Your task to perform on an android device: check android version Image 0: 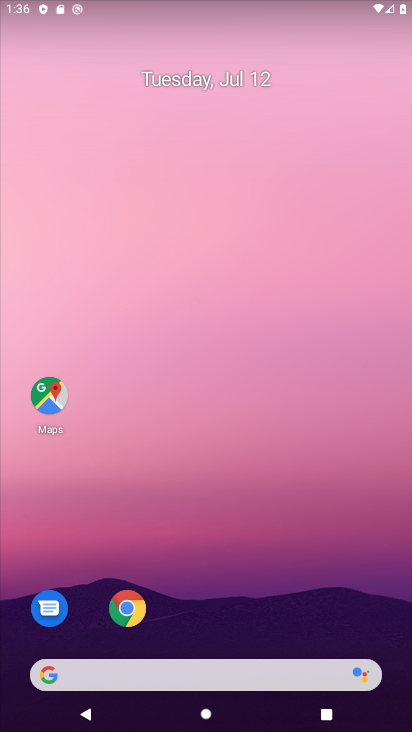
Step 0: drag from (264, 611) to (277, 102)
Your task to perform on an android device: check android version Image 1: 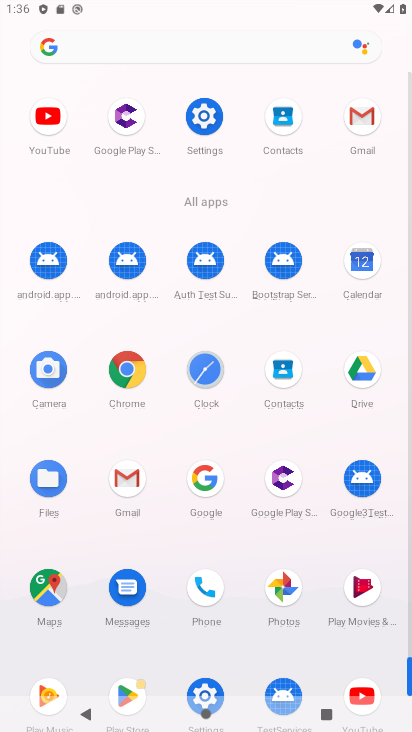
Step 1: click (205, 111)
Your task to perform on an android device: check android version Image 2: 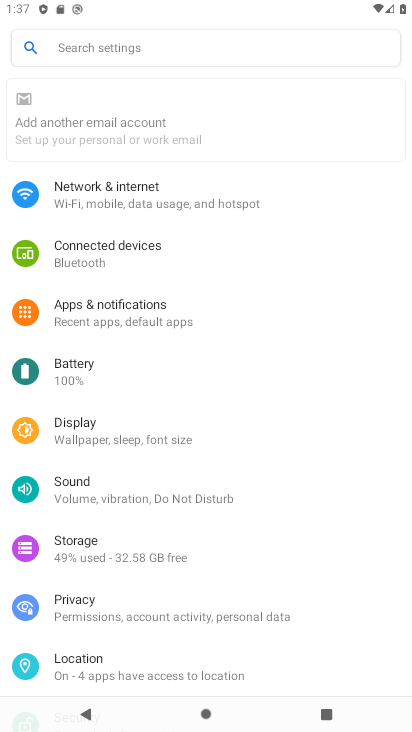
Step 2: drag from (194, 561) to (263, 41)
Your task to perform on an android device: check android version Image 3: 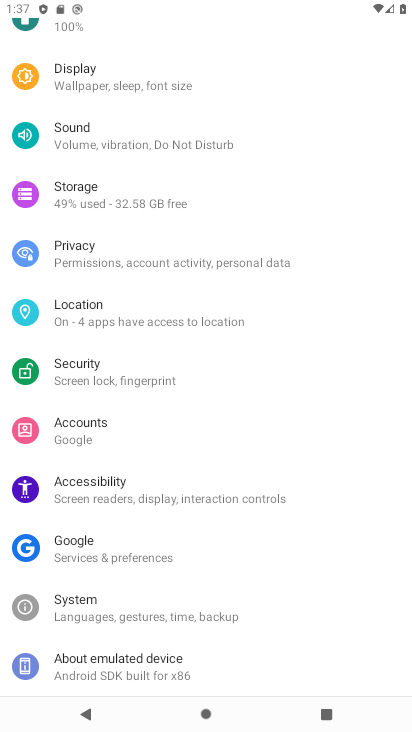
Step 3: click (111, 648)
Your task to perform on an android device: check android version Image 4: 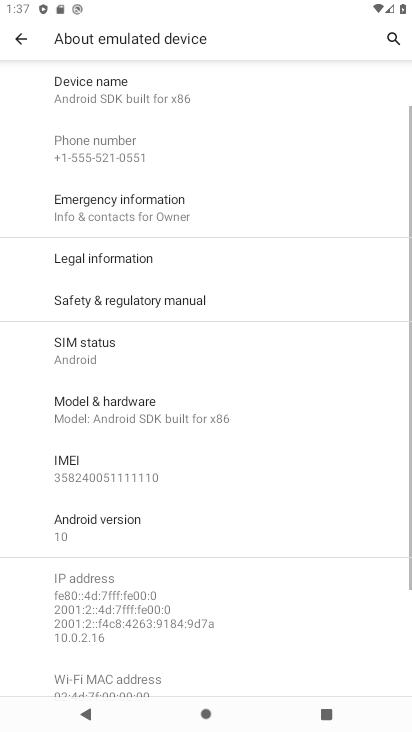
Step 4: click (95, 528)
Your task to perform on an android device: check android version Image 5: 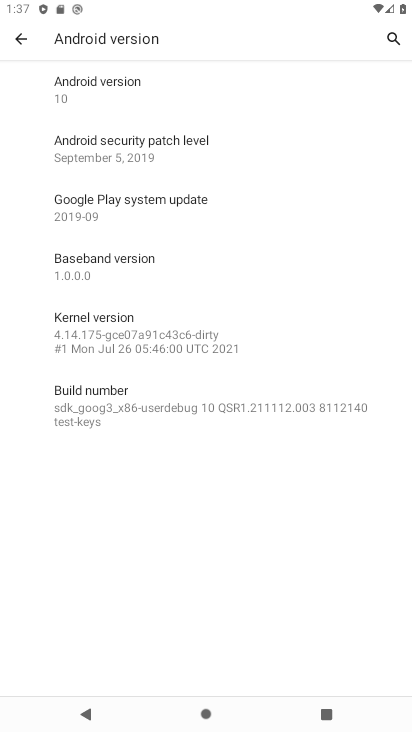
Step 5: task complete